Your task to perform on an android device: Go to Google Image 0: 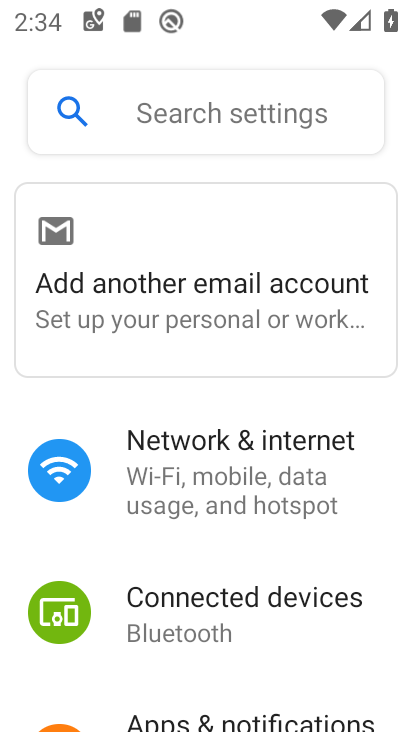
Step 0: press back button
Your task to perform on an android device: Go to Google Image 1: 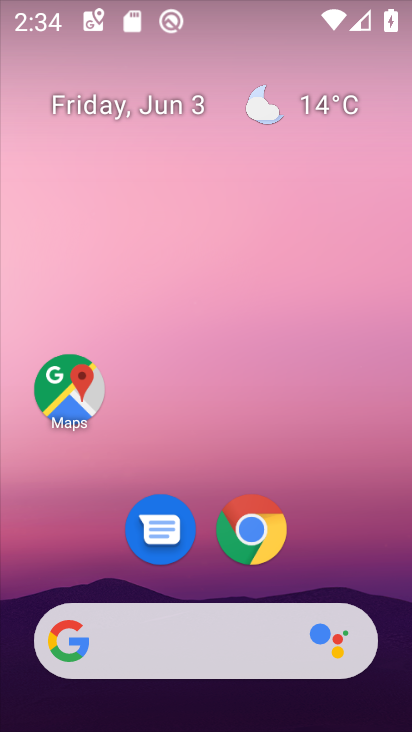
Step 1: drag from (293, 674) to (225, 157)
Your task to perform on an android device: Go to Google Image 2: 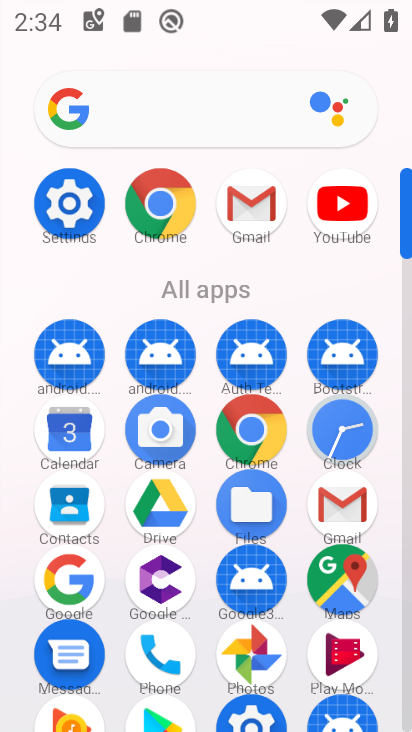
Step 2: click (65, 576)
Your task to perform on an android device: Go to Google Image 3: 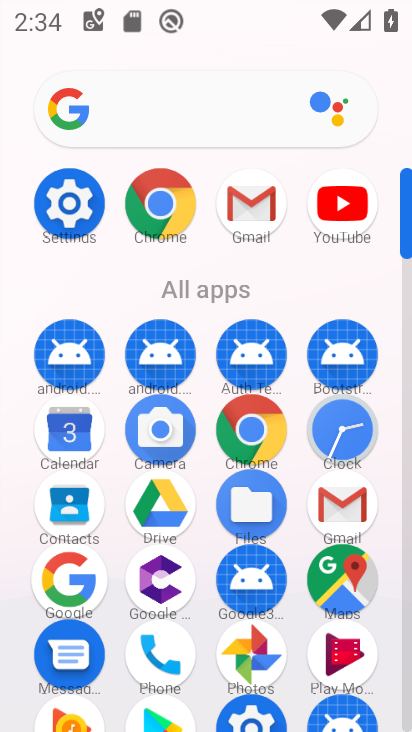
Step 3: click (65, 576)
Your task to perform on an android device: Go to Google Image 4: 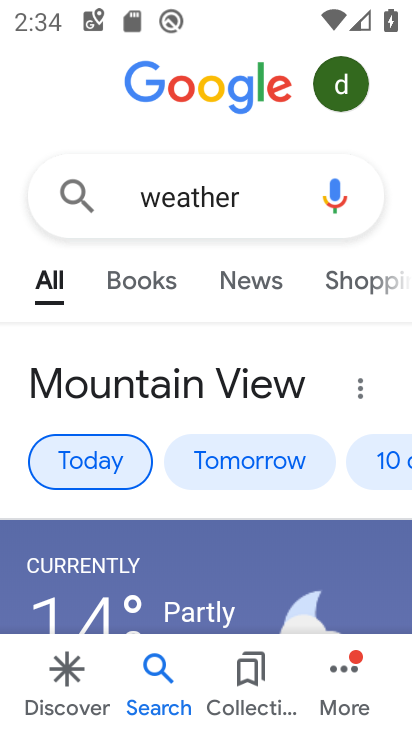
Step 4: task complete